Your task to perform on an android device: Open Google Chrome Image 0: 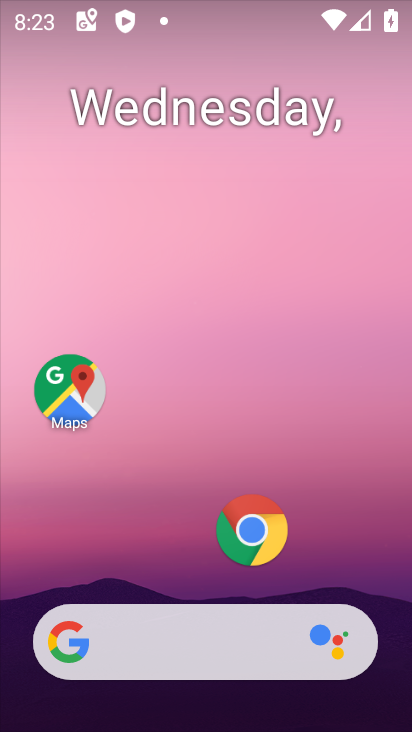
Step 0: click (246, 520)
Your task to perform on an android device: Open Google Chrome Image 1: 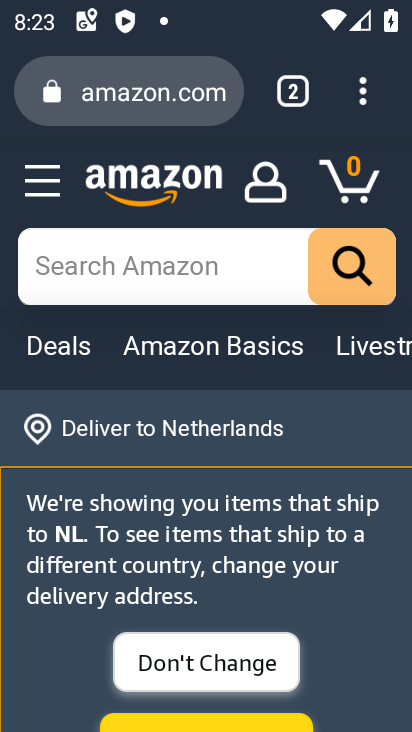
Step 1: task complete